Your task to perform on an android device: Search for Italian restaurants on Maps Image 0: 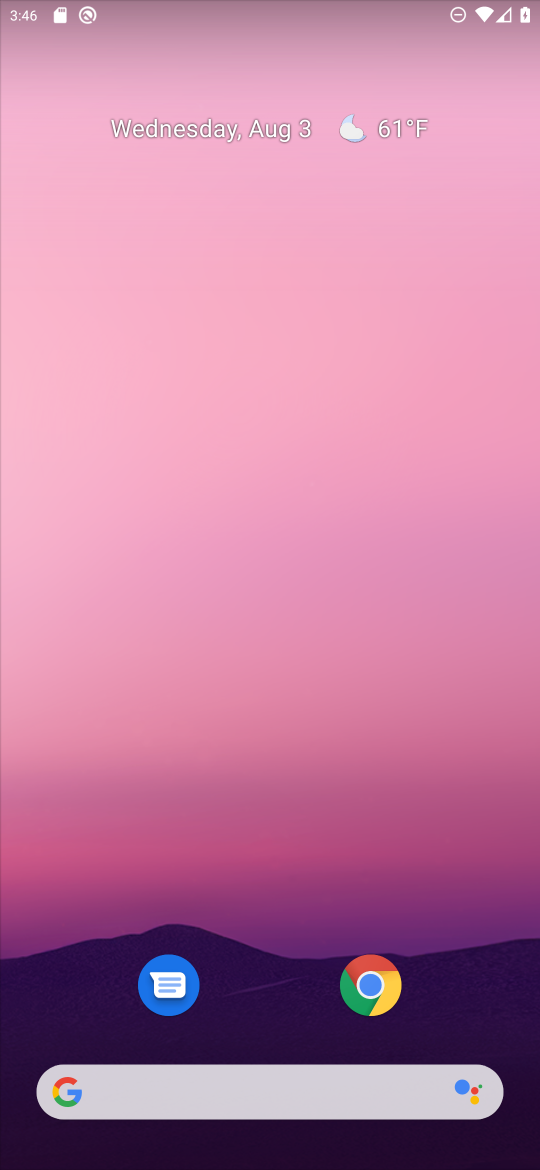
Step 0: drag from (279, 934) to (312, 2)
Your task to perform on an android device: Search for Italian restaurants on Maps Image 1: 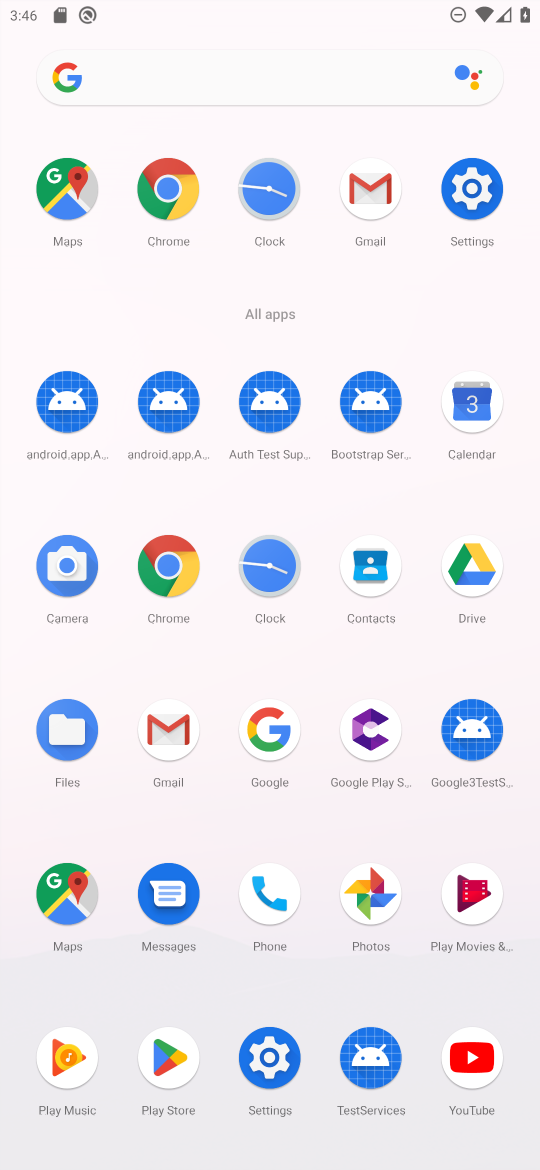
Step 1: click (67, 892)
Your task to perform on an android device: Search for Italian restaurants on Maps Image 2: 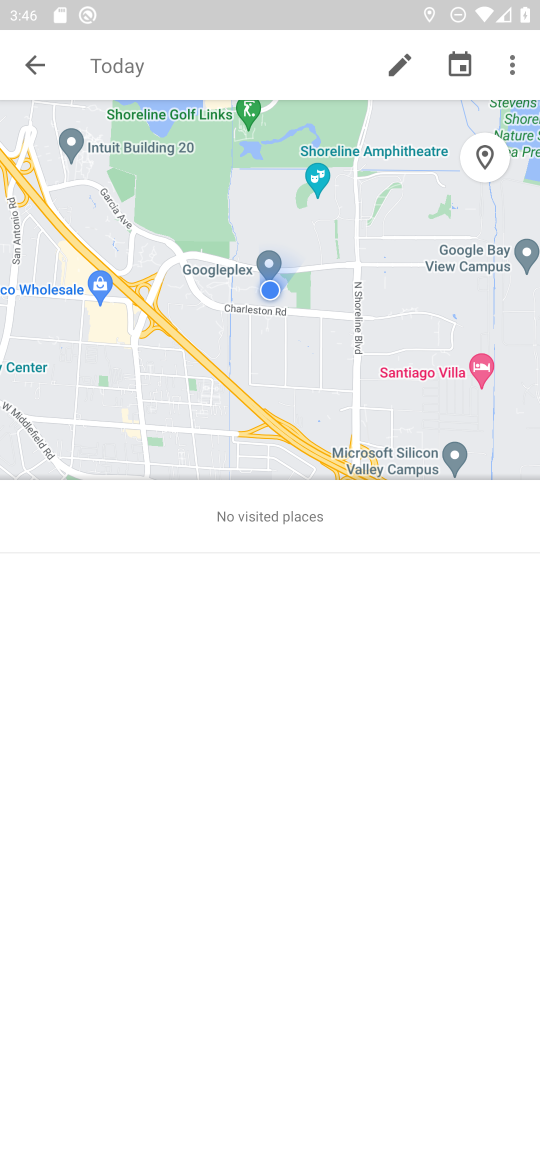
Step 2: click (28, 64)
Your task to perform on an android device: Search for Italian restaurants on Maps Image 3: 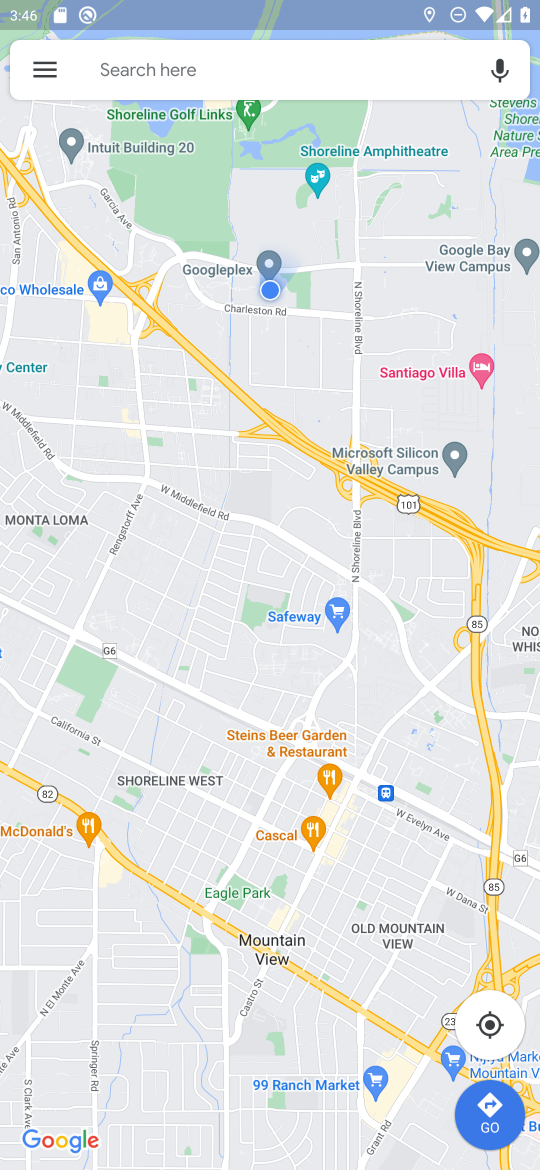
Step 3: click (150, 82)
Your task to perform on an android device: Search for Italian restaurants on Maps Image 4: 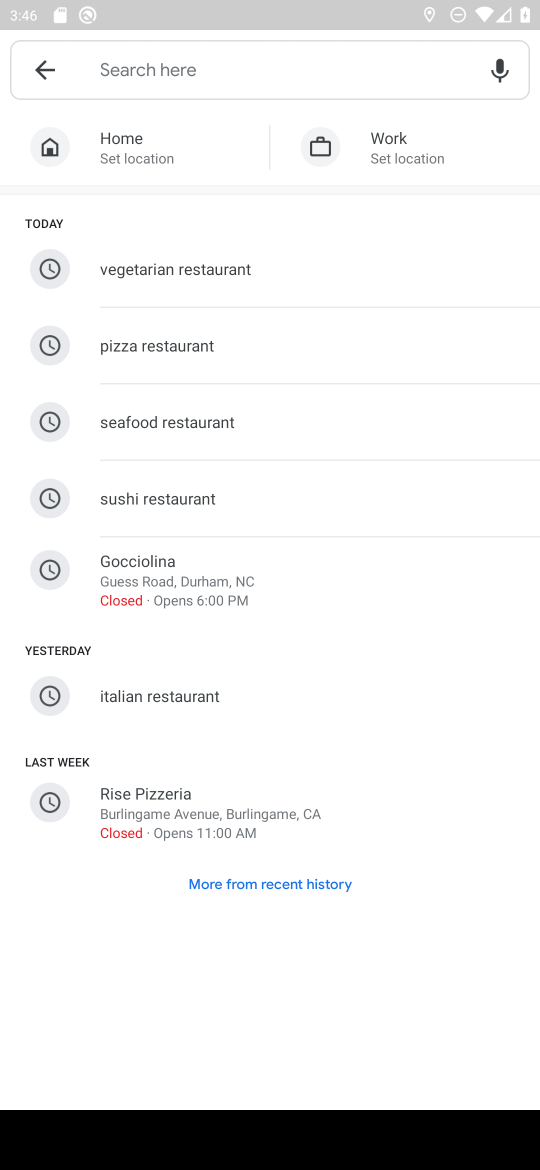
Step 4: type "italian restaurants"
Your task to perform on an android device: Search for Italian restaurants on Maps Image 5: 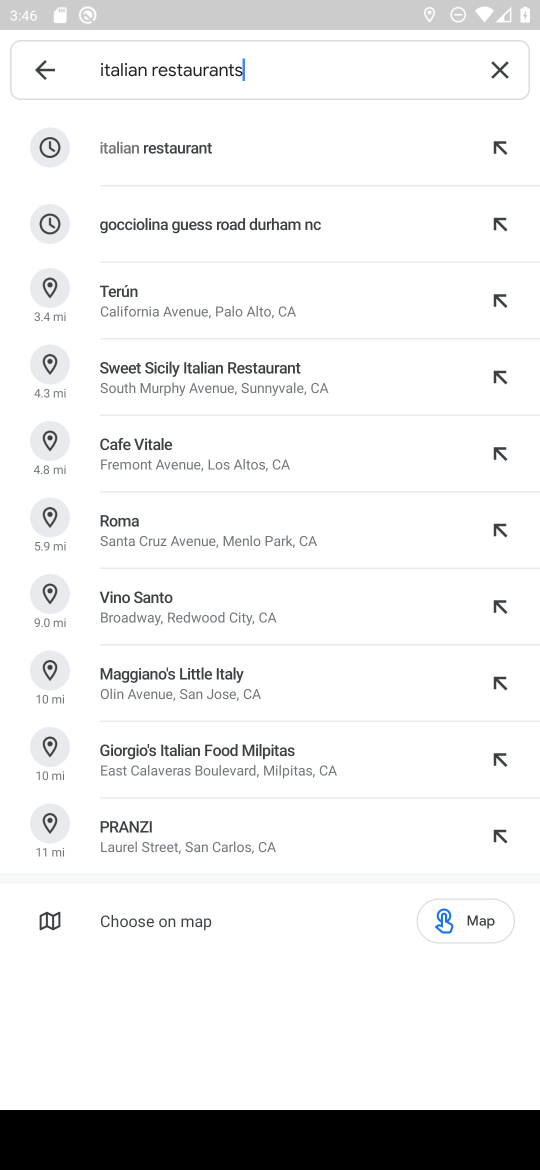
Step 5: click (284, 156)
Your task to perform on an android device: Search for Italian restaurants on Maps Image 6: 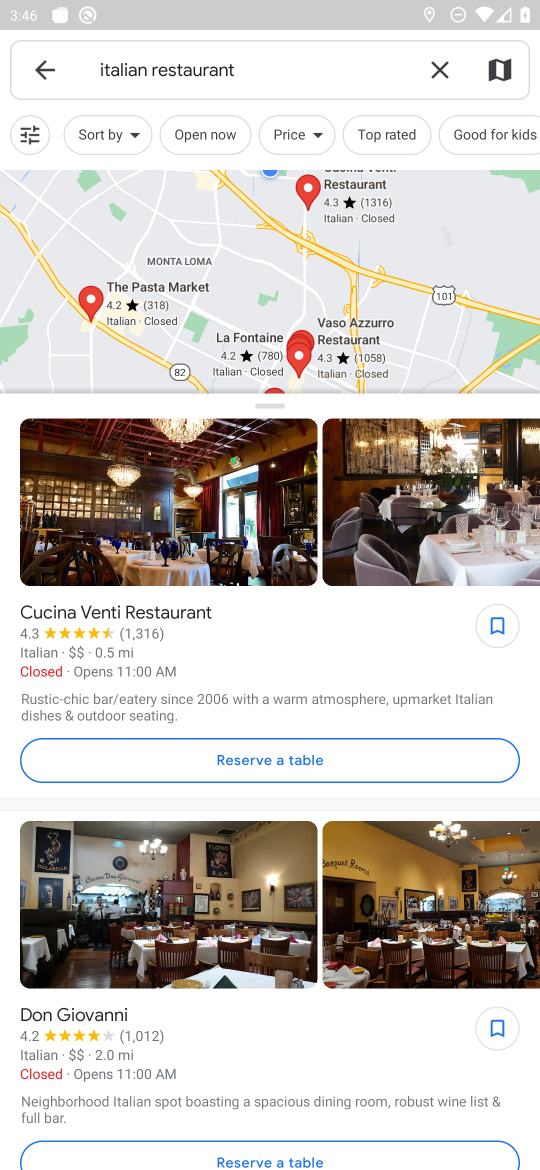
Step 6: task complete